Your task to perform on an android device: Go to CNN.com Image 0: 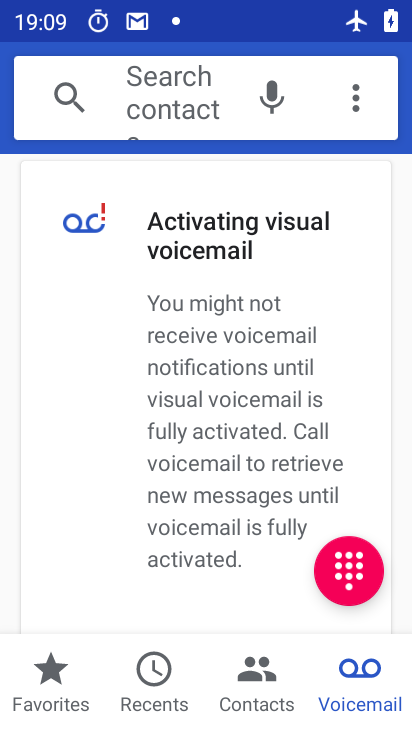
Step 0: press home button
Your task to perform on an android device: Go to CNN.com Image 1: 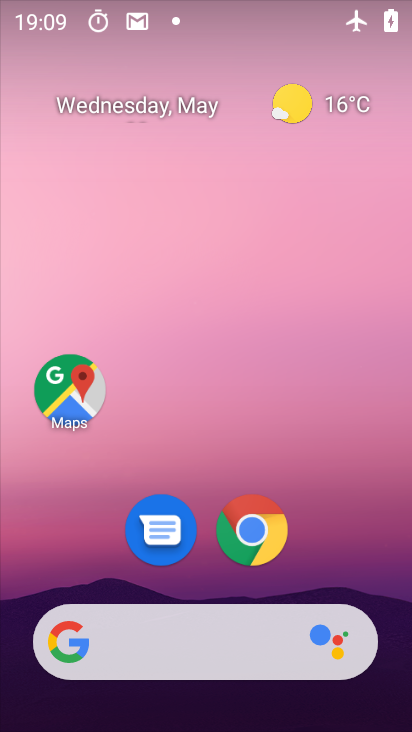
Step 1: click (242, 525)
Your task to perform on an android device: Go to CNN.com Image 2: 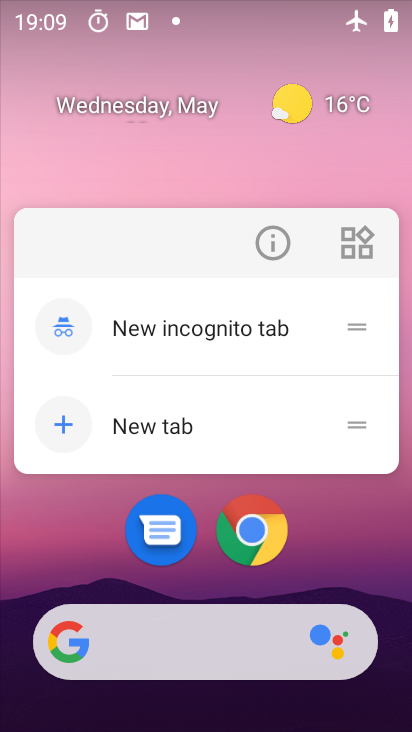
Step 2: click (256, 530)
Your task to perform on an android device: Go to CNN.com Image 3: 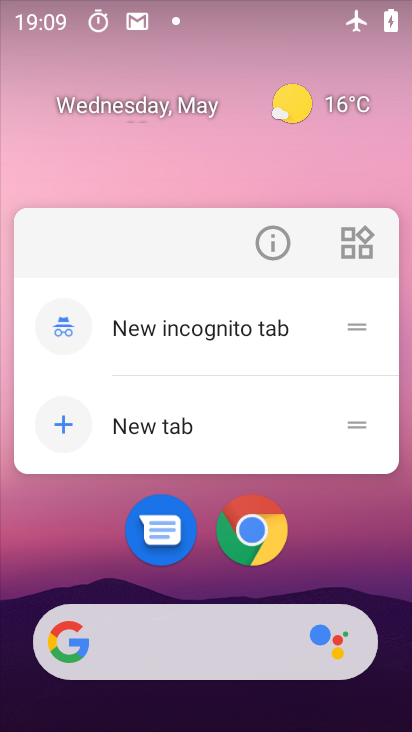
Step 3: click (255, 534)
Your task to perform on an android device: Go to CNN.com Image 4: 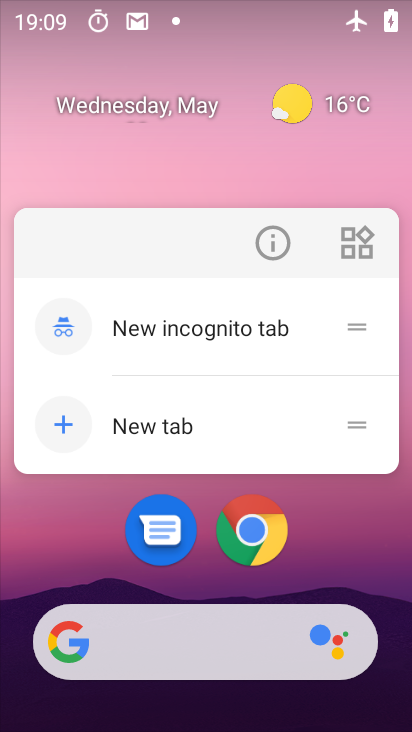
Step 4: click (254, 534)
Your task to perform on an android device: Go to CNN.com Image 5: 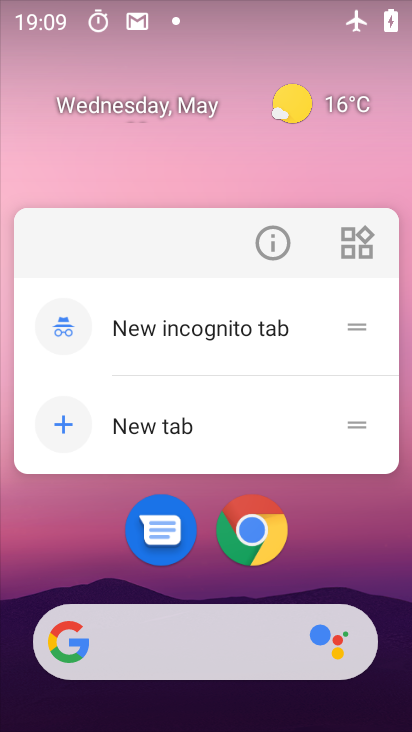
Step 5: click (290, 242)
Your task to perform on an android device: Go to CNN.com Image 6: 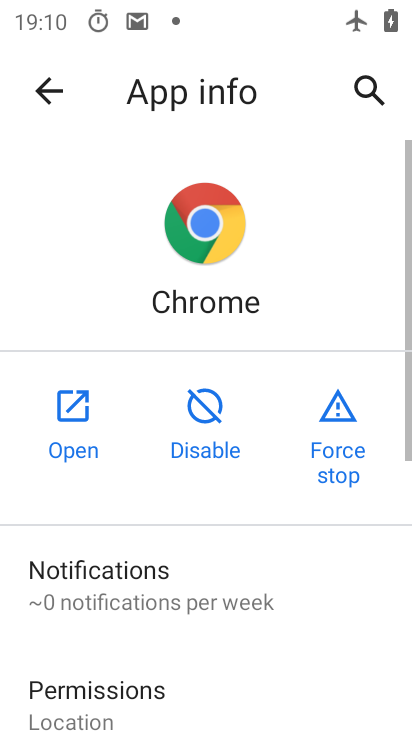
Step 6: click (82, 418)
Your task to perform on an android device: Go to CNN.com Image 7: 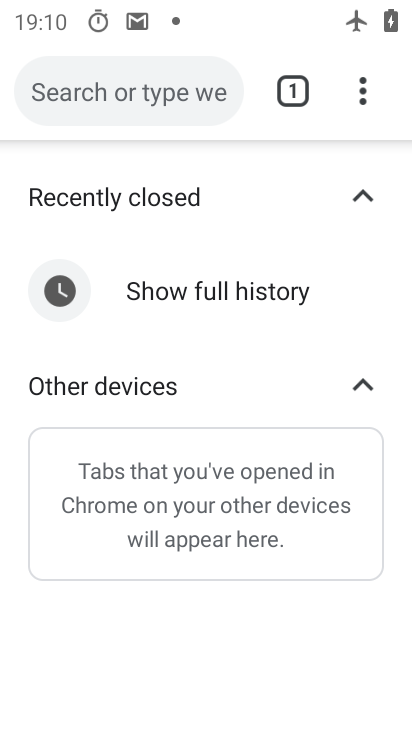
Step 7: click (111, 91)
Your task to perform on an android device: Go to CNN.com Image 8: 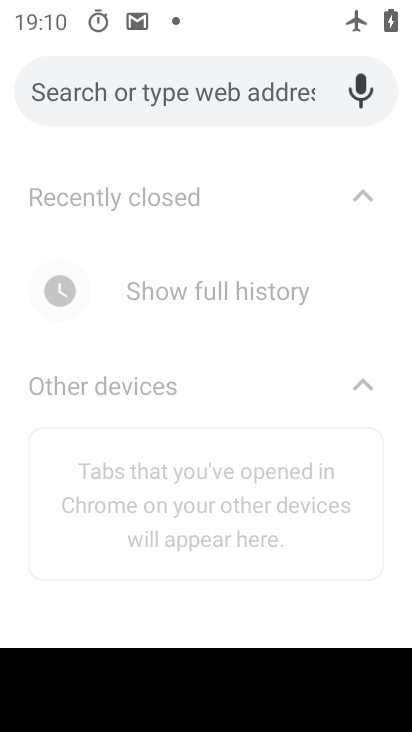
Step 8: type "CNN.com"
Your task to perform on an android device: Go to CNN.com Image 9: 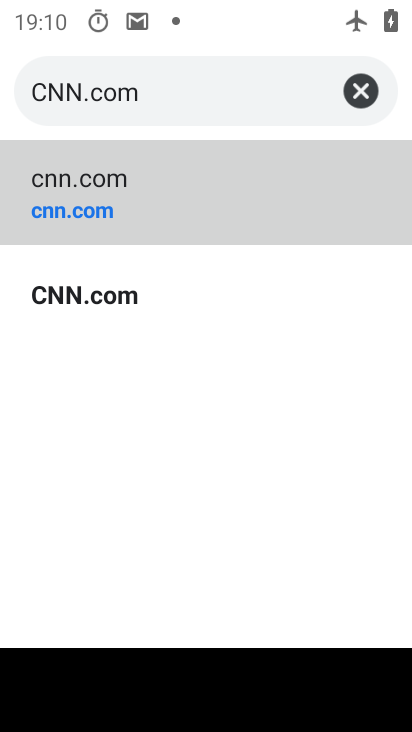
Step 9: click (247, 197)
Your task to perform on an android device: Go to CNN.com Image 10: 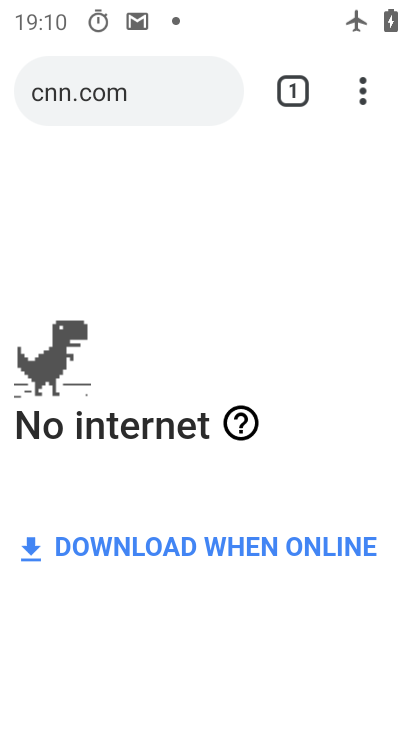
Step 10: task complete